Your task to perform on an android device: turn on location history Image 0: 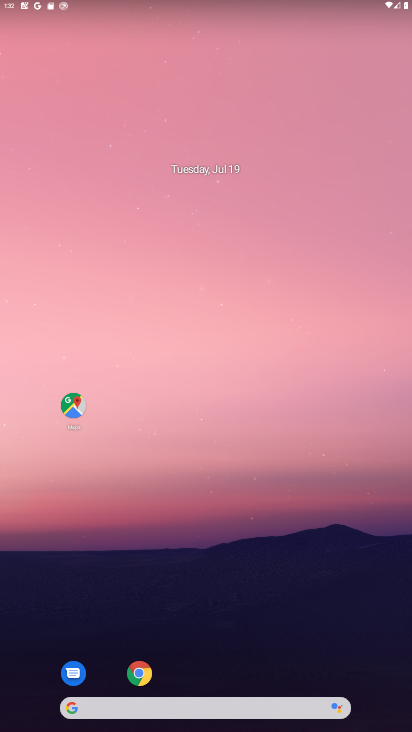
Step 0: drag from (80, 712) to (132, 381)
Your task to perform on an android device: turn on location history Image 1: 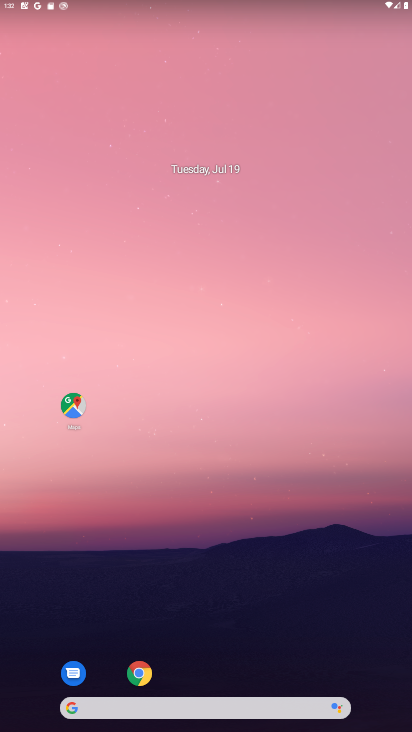
Step 1: click (70, 408)
Your task to perform on an android device: turn on location history Image 2: 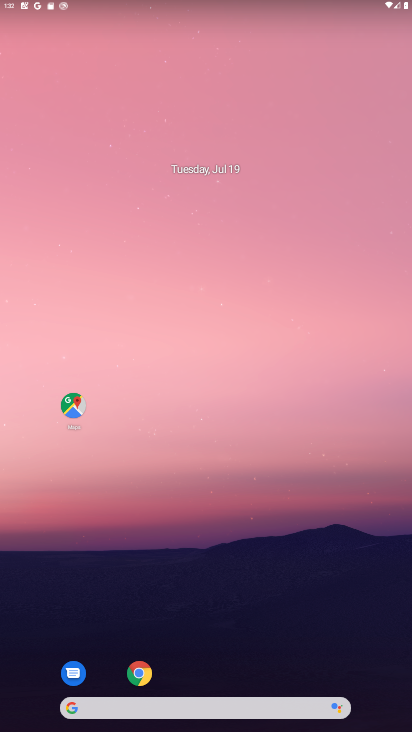
Step 2: click (70, 408)
Your task to perform on an android device: turn on location history Image 3: 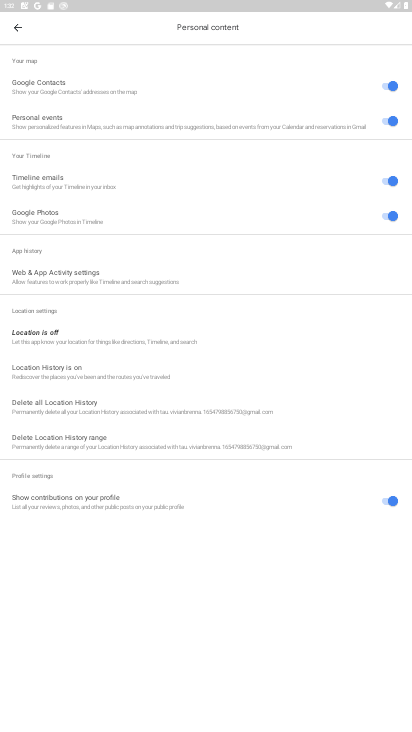
Step 3: click (73, 368)
Your task to perform on an android device: turn on location history Image 4: 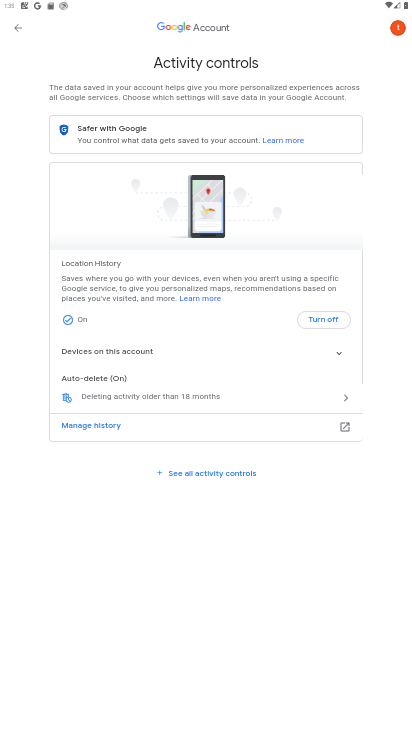
Step 4: task complete